Your task to perform on an android device: turn on the 12-hour format for clock Image 0: 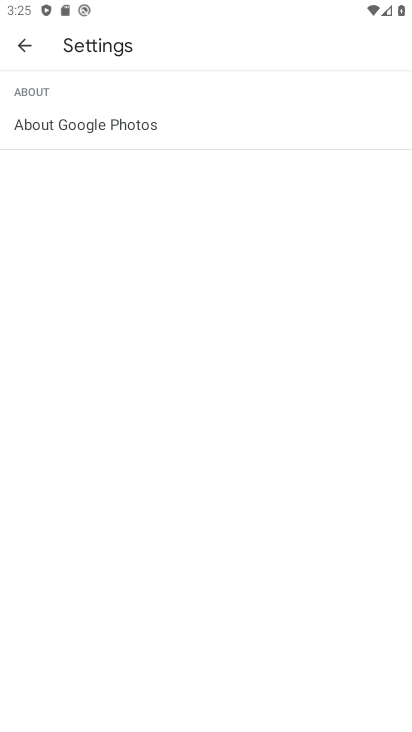
Step 0: press home button
Your task to perform on an android device: turn on the 12-hour format for clock Image 1: 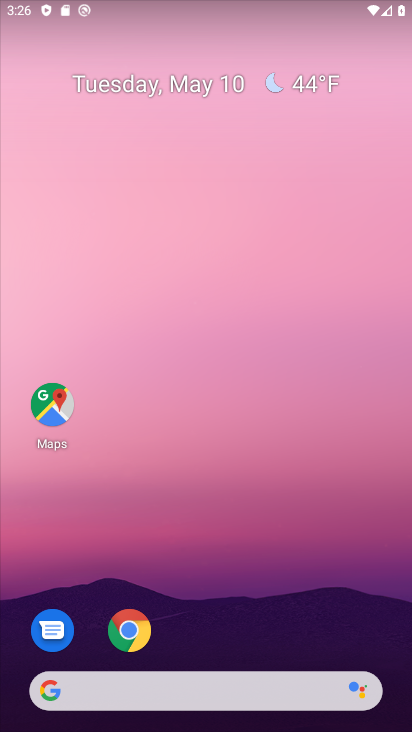
Step 1: drag from (228, 671) to (281, 148)
Your task to perform on an android device: turn on the 12-hour format for clock Image 2: 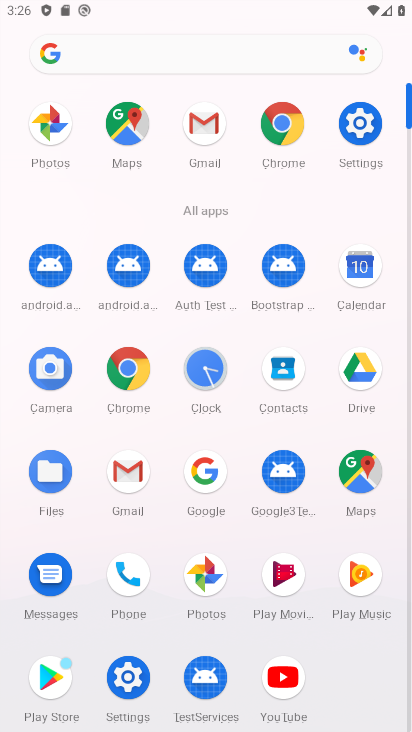
Step 2: click (367, 99)
Your task to perform on an android device: turn on the 12-hour format for clock Image 3: 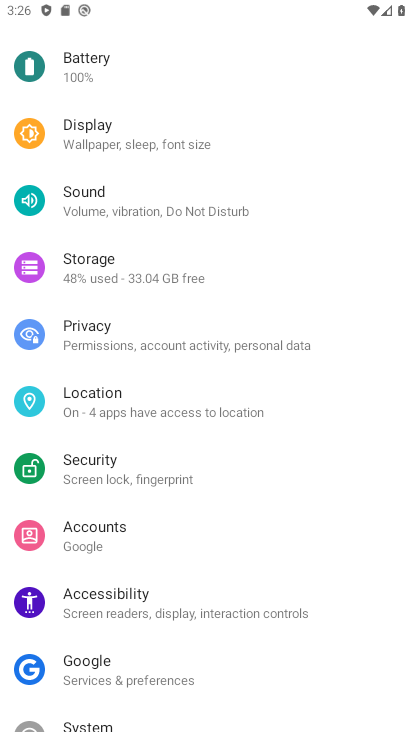
Step 3: drag from (137, 628) to (169, 54)
Your task to perform on an android device: turn on the 12-hour format for clock Image 4: 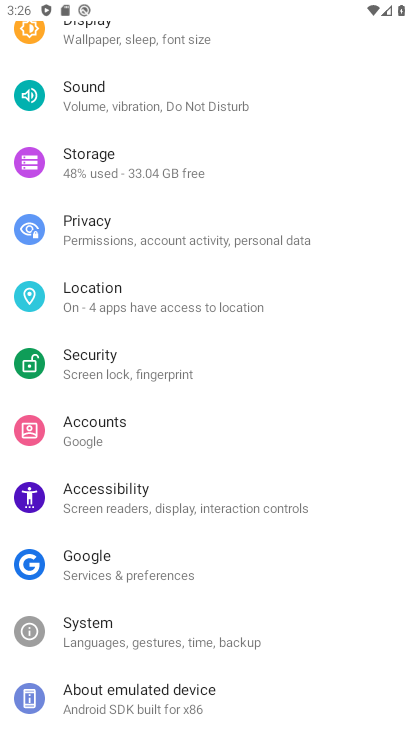
Step 4: click (76, 623)
Your task to perform on an android device: turn on the 12-hour format for clock Image 5: 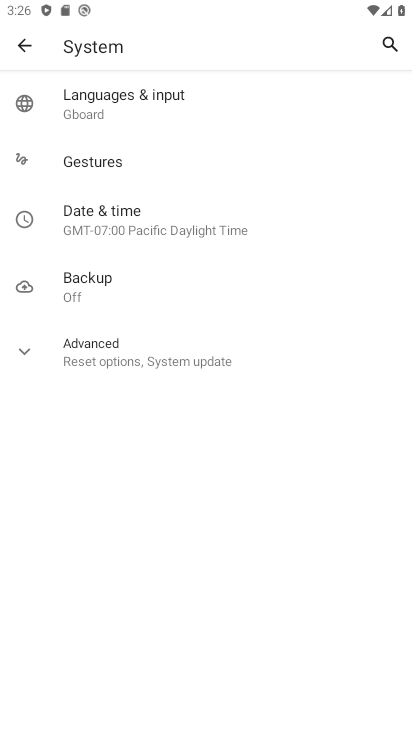
Step 5: click (99, 235)
Your task to perform on an android device: turn on the 12-hour format for clock Image 6: 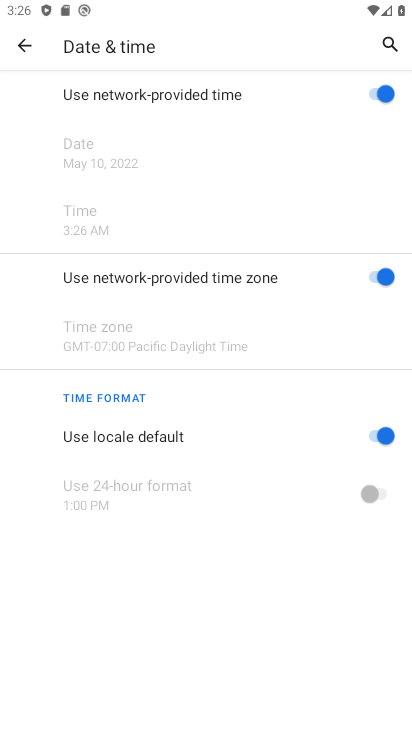
Step 6: task complete